Your task to perform on an android device: empty trash in the gmail app Image 0: 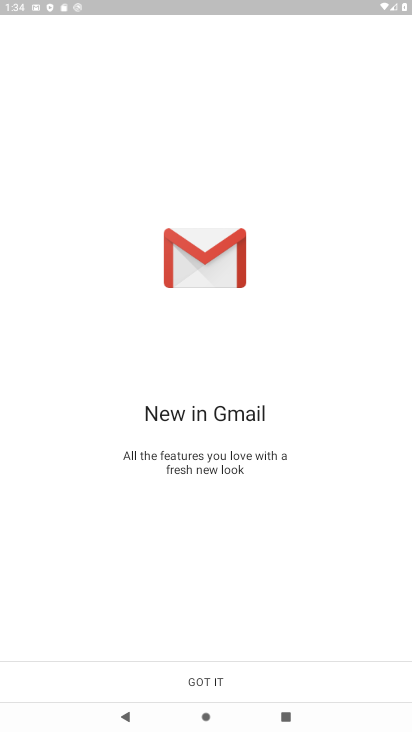
Step 0: press home button
Your task to perform on an android device: empty trash in the gmail app Image 1: 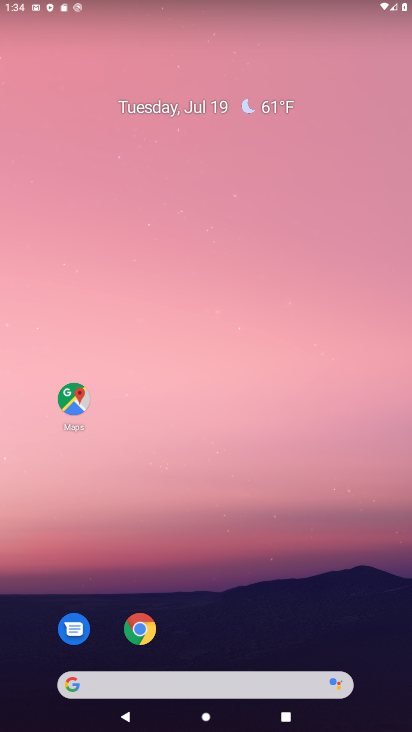
Step 1: drag from (343, 612) to (296, 38)
Your task to perform on an android device: empty trash in the gmail app Image 2: 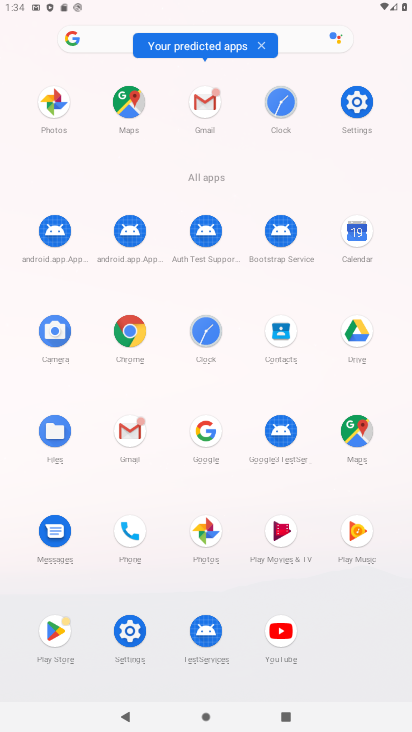
Step 2: click (130, 430)
Your task to perform on an android device: empty trash in the gmail app Image 3: 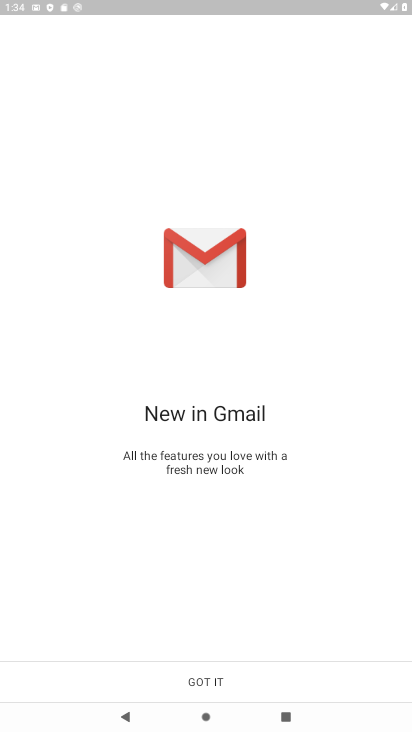
Step 3: click (206, 689)
Your task to perform on an android device: empty trash in the gmail app Image 4: 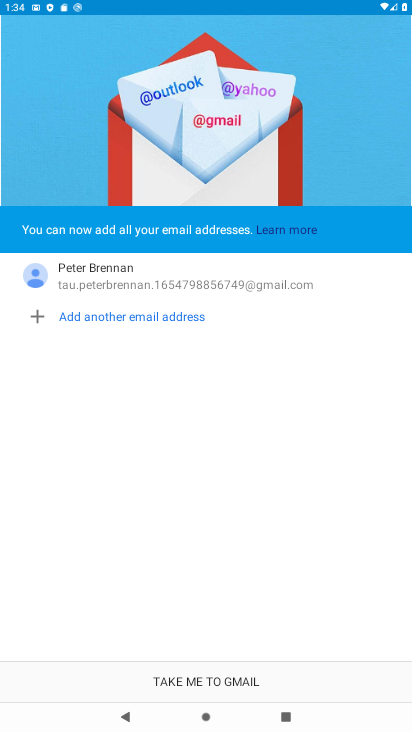
Step 4: click (206, 685)
Your task to perform on an android device: empty trash in the gmail app Image 5: 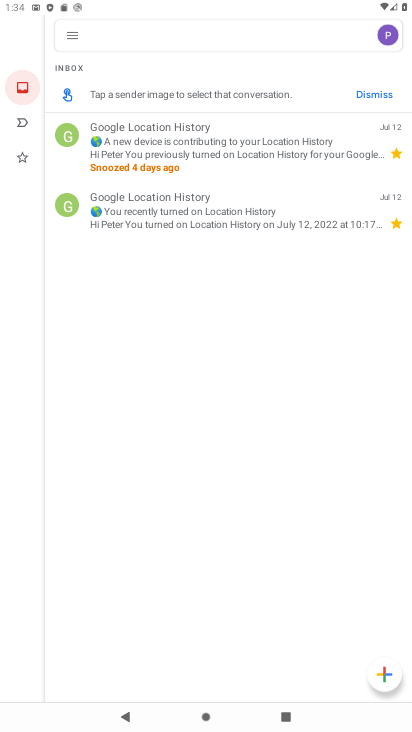
Step 5: click (72, 40)
Your task to perform on an android device: empty trash in the gmail app Image 6: 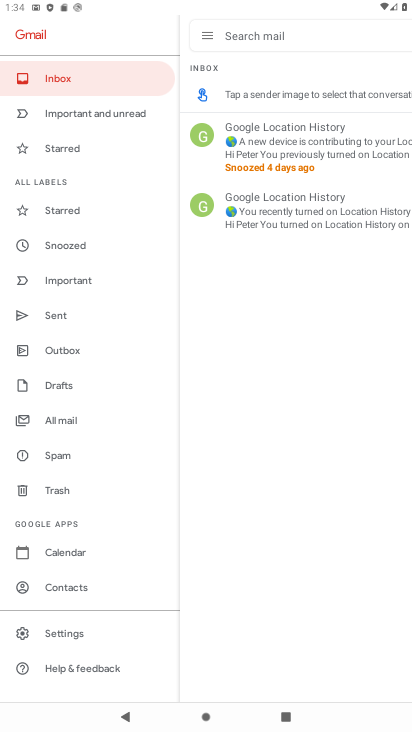
Step 6: click (47, 481)
Your task to perform on an android device: empty trash in the gmail app Image 7: 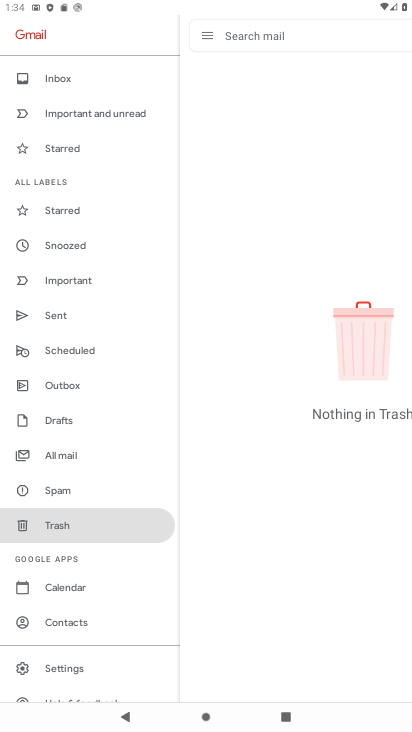
Step 7: task complete